Your task to perform on an android device: What's on my calendar tomorrow? Image 0: 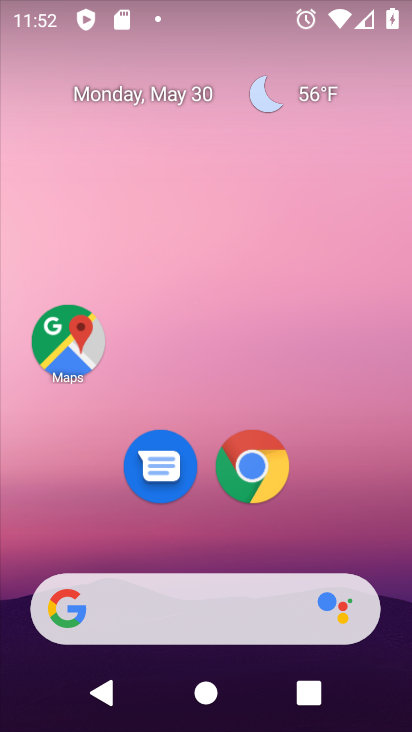
Step 0: drag from (146, 626) to (154, 123)
Your task to perform on an android device: What's on my calendar tomorrow? Image 1: 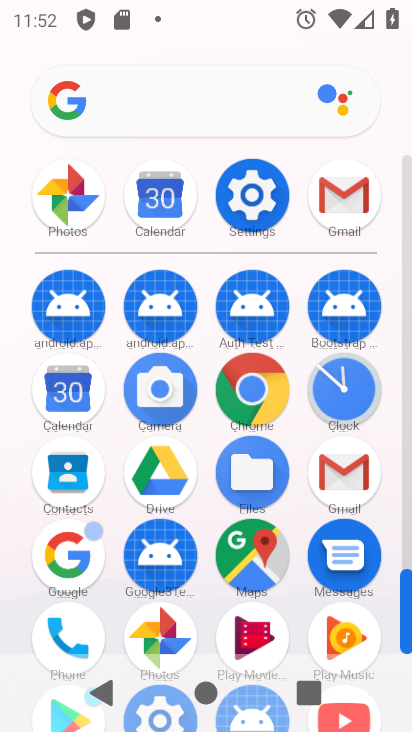
Step 1: click (72, 385)
Your task to perform on an android device: What's on my calendar tomorrow? Image 2: 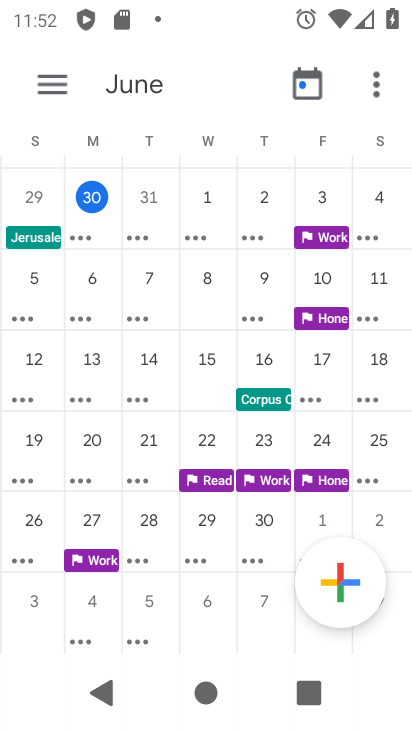
Step 2: click (49, 88)
Your task to perform on an android device: What's on my calendar tomorrow? Image 3: 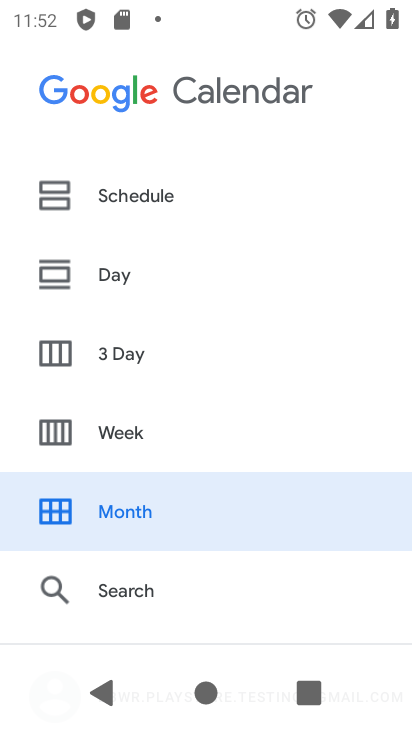
Step 3: click (97, 197)
Your task to perform on an android device: What's on my calendar tomorrow? Image 4: 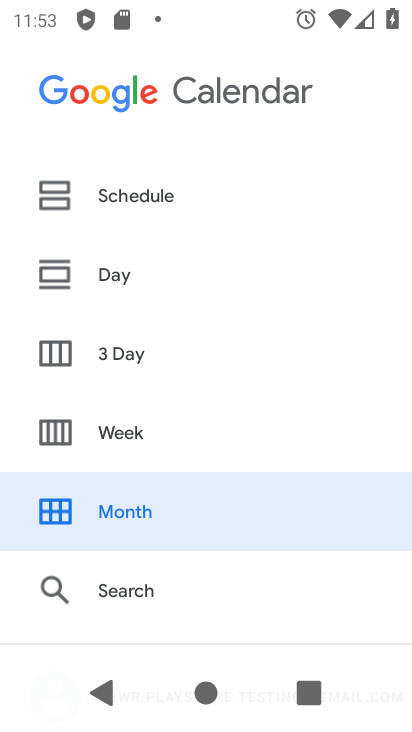
Step 4: click (120, 192)
Your task to perform on an android device: What's on my calendar tomorrow? Image 5: 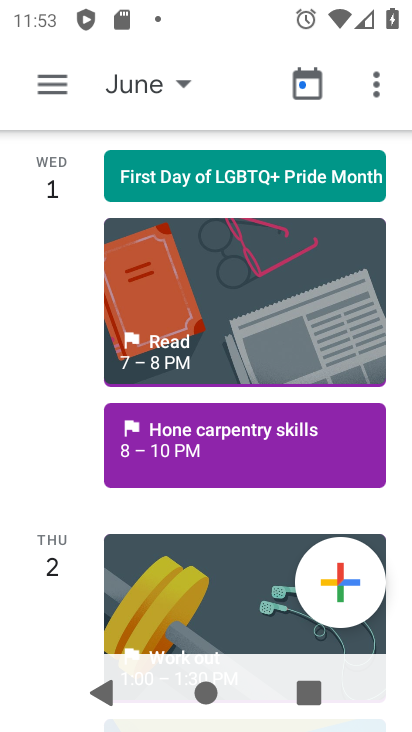
Step 5: click (141, 88)
Your task to perform on an android device: What's on my calendar tomorrow? Image 6: 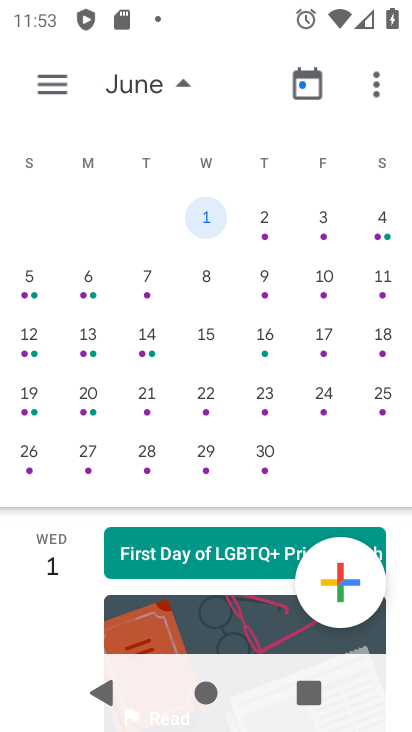
Step 6: drag from (67, 383) to (411, 389)
Your task to perform on an android device: What's on my calendar tomorrow? Image 7: 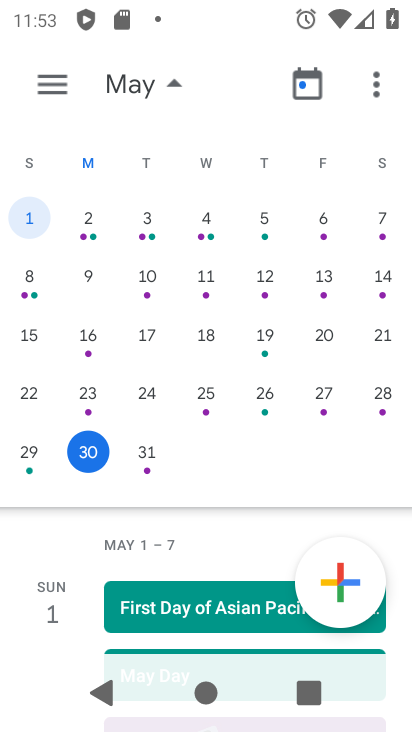
Step 7: click (142, 447)
Your task to perform on an android device: What's on my calendar tomorrow? Image 8: 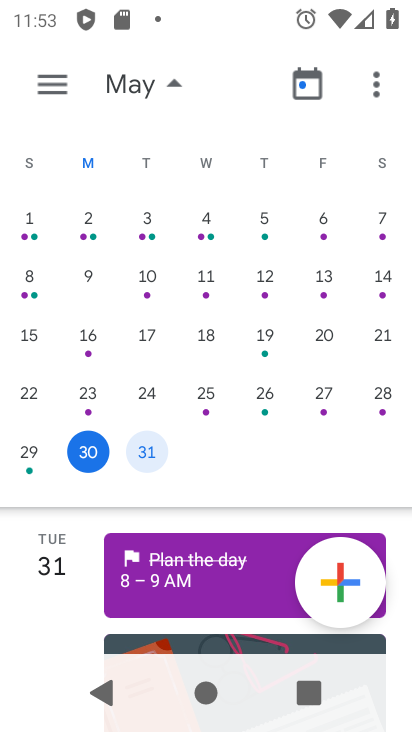
Step 8: click (170, 83)
Your task to perform on an android device: What's on my calendar tomorrow? Image 9: 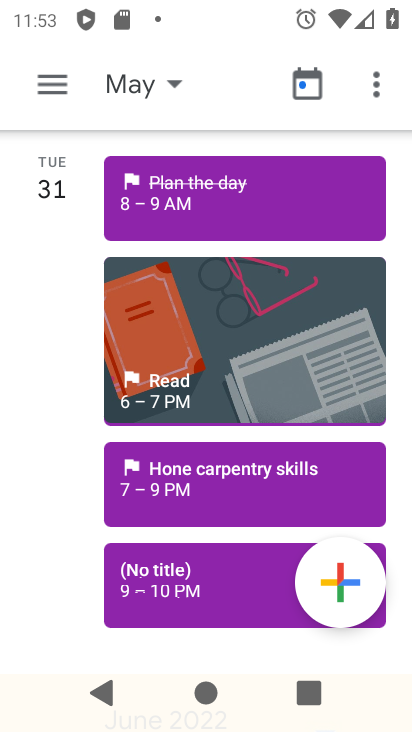
Step 9: task complete